Your task to perform on an android device: Go to calendar. Show me events next week Image 0: 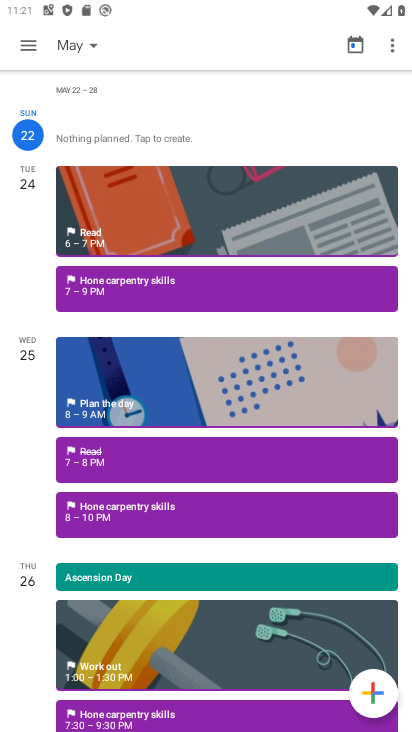
Step 0: click (360, 47)
Your task to perform on an android device: Go to calendar. Show me events next week Image 1: 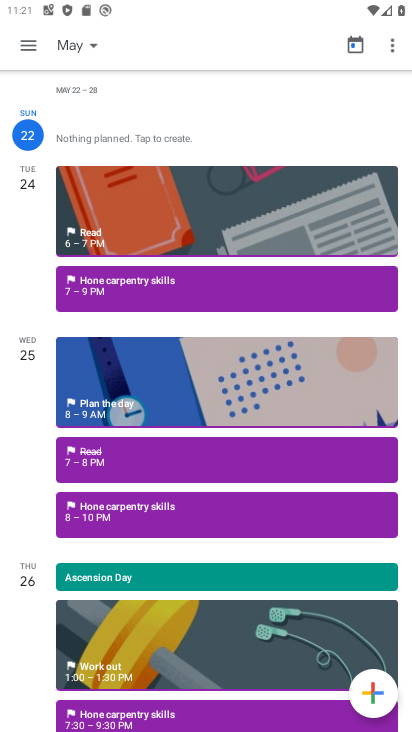
Step 1: click (96, 48)
Your task to perform on an android device: Go to calendar. Show me events next week Image 2: 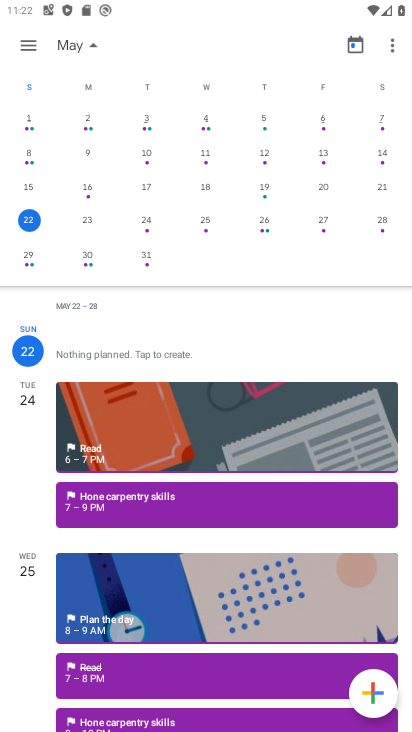
Step 2: click (88, 261)
Your task to perform on an android device: Go to calendar. Show me events next week Image 3: 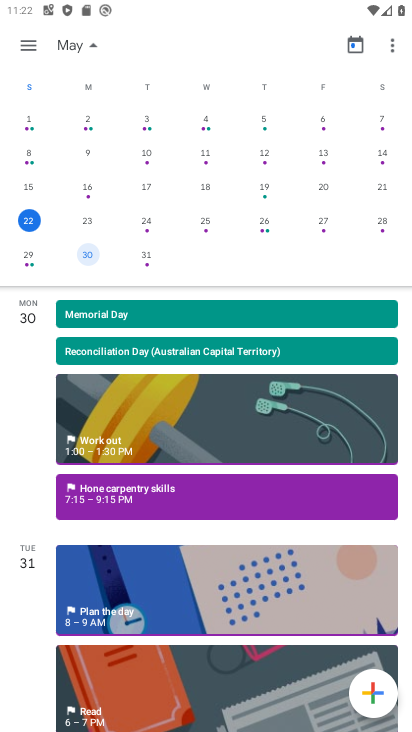
Step 3: click (25, 44)
Your task to perform on an android device: Go to calendar. Show me events next week Image 4: 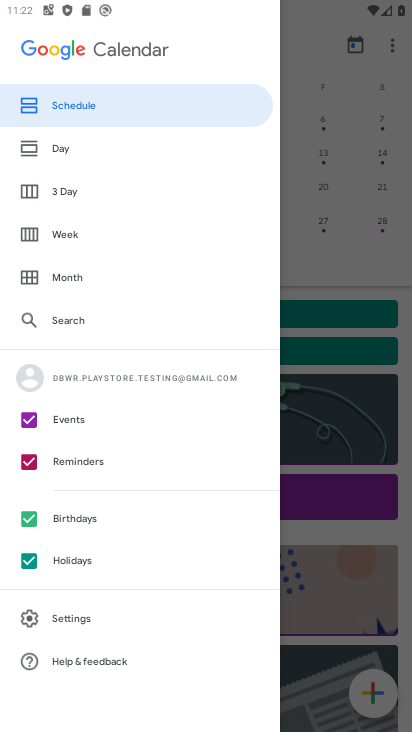
Step 4: click (67, 111)
Your task to perform on an android device: Go to calendar. Show me events next week Image 5: 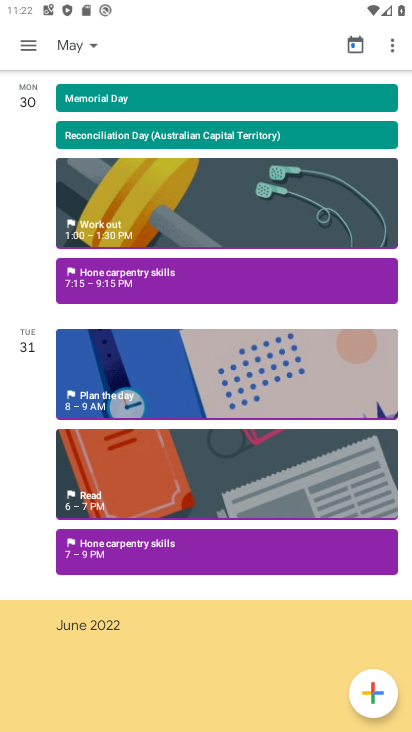
Step 5: click (146, 286)
Your task to perform on an android device: Go to calendar. Show me events next week Image 6: 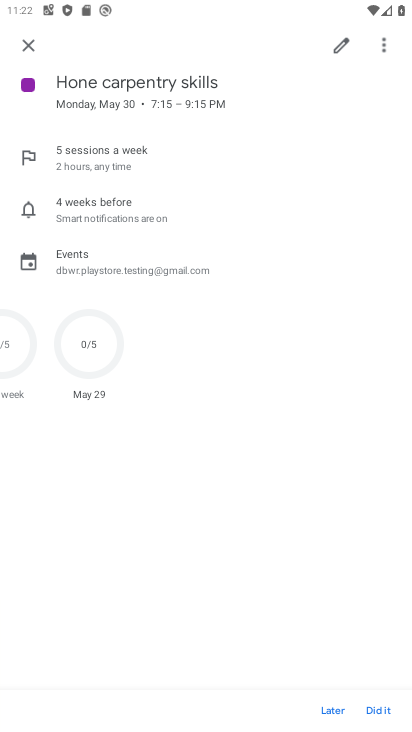
Step 6: task complete